Your task to perform on an android device: clear all cookies in the chrome app Image 0: 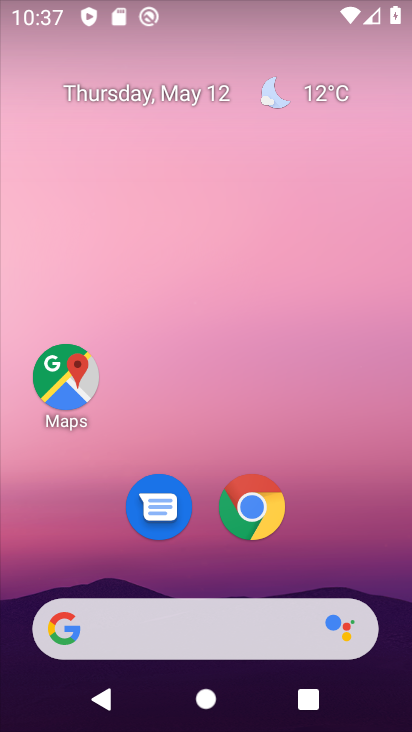
Step 0: click (251, 511)
Your task to perform on an android device: clear all cookies in the chrome app Image 1: 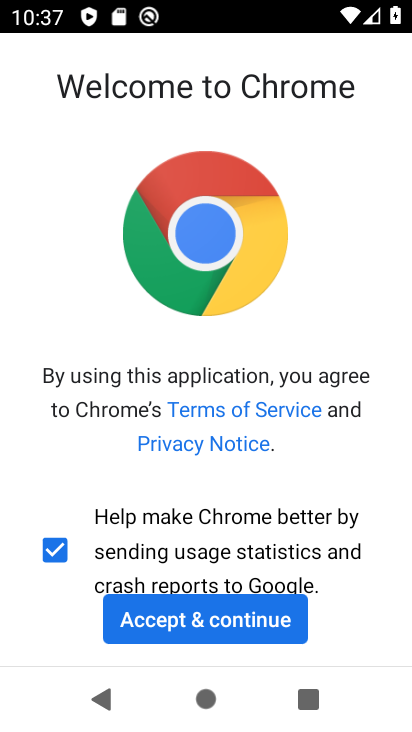
Step 1: click (208, 610)
Your task to perform on an android device: clear all cookies in the chrome app Image 2: 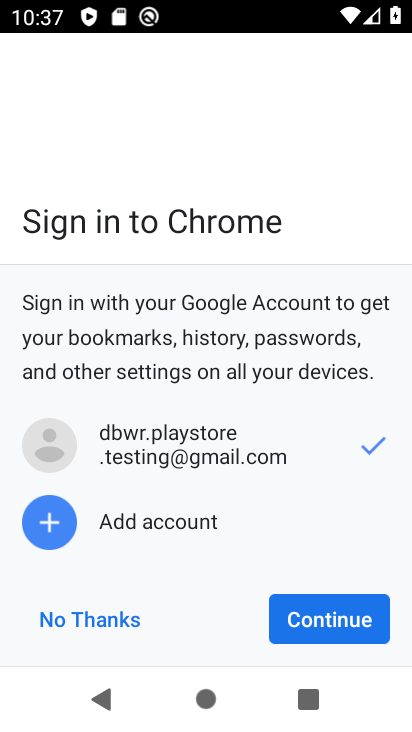
Step 2: click (325, 619)
Your task to perform on an android device: clear all cookies in the chrome app Image 3: 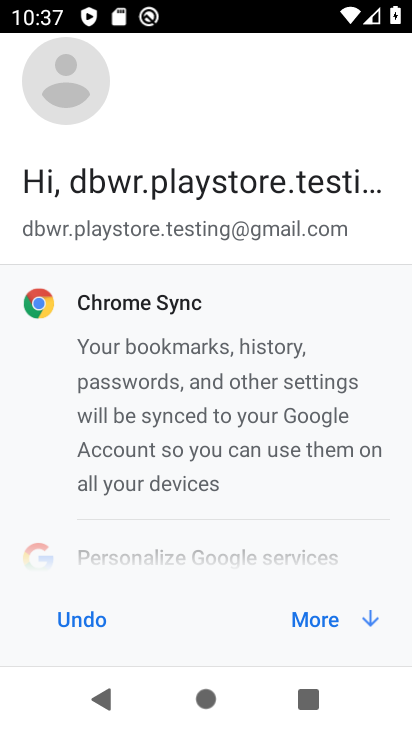
Step 3: click (325, 619)
Your task to perform on an android device: clear all cookies in the chrome app Image 4: 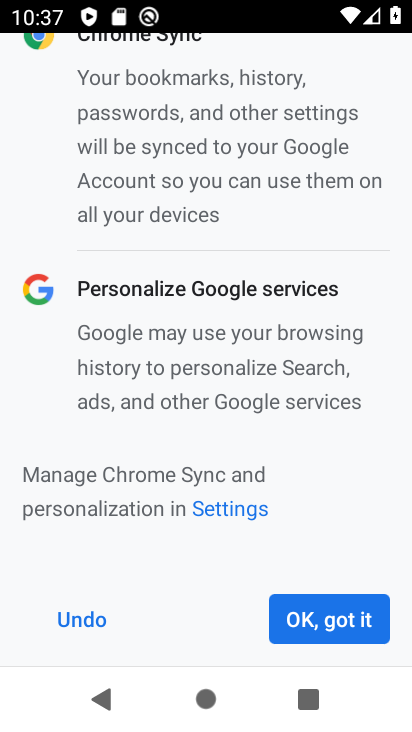
Step 4: click (325, 619)
Your task to perform on an android device: clear all cookies in the chrome app Image 5: 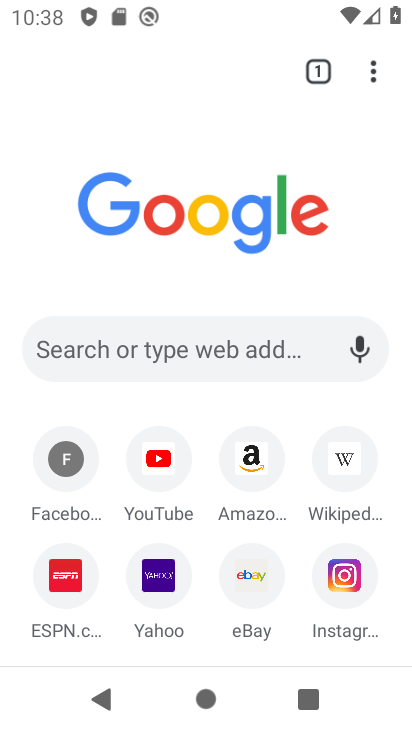
Step 5: click (375, 69)
Your task to perform on an android device: clear all cookies in the chrome app Image 6: 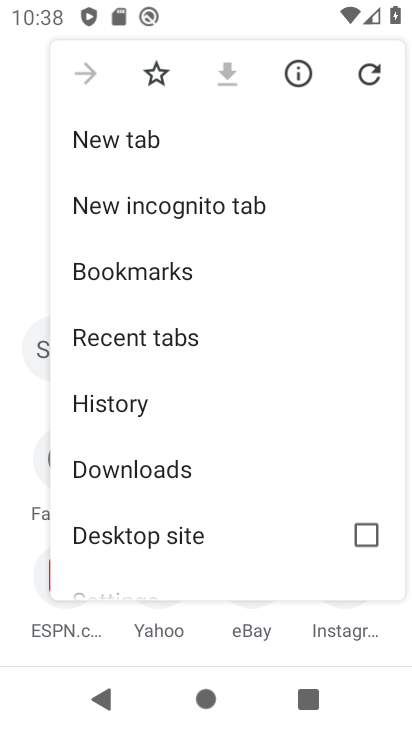
Step 6: click (144, 418)
Your task to perform on an android device: clear all cookies in the chrome app Image 7: 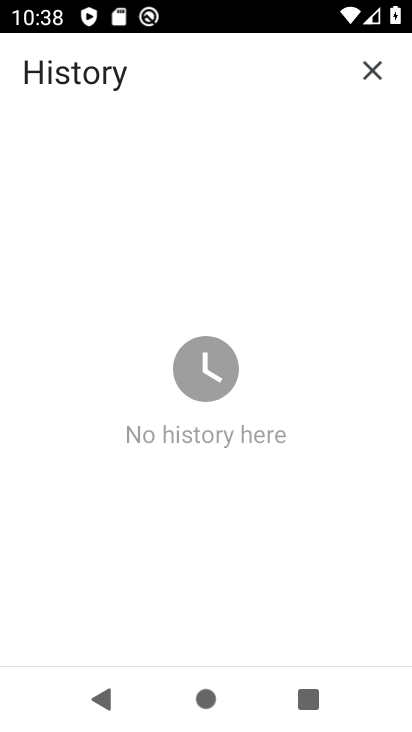
Step 7: task complete